Your task to perform on an android device: Open Reddit.com Image 0: 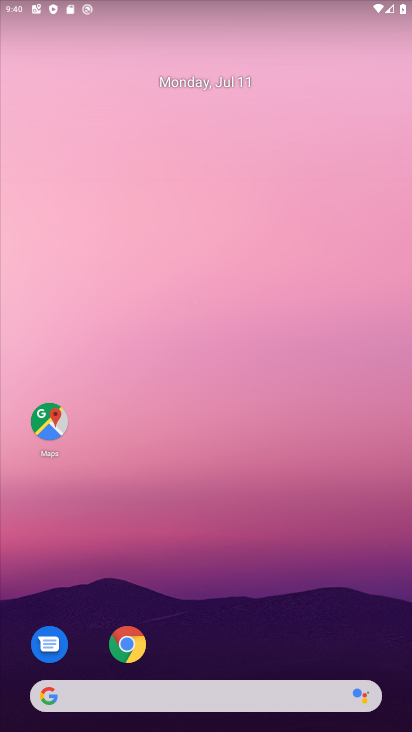
Step 0: drag from (224, 610) to (276, 75)
Your task to perform on an android device: Open Reddit.com Image 1: 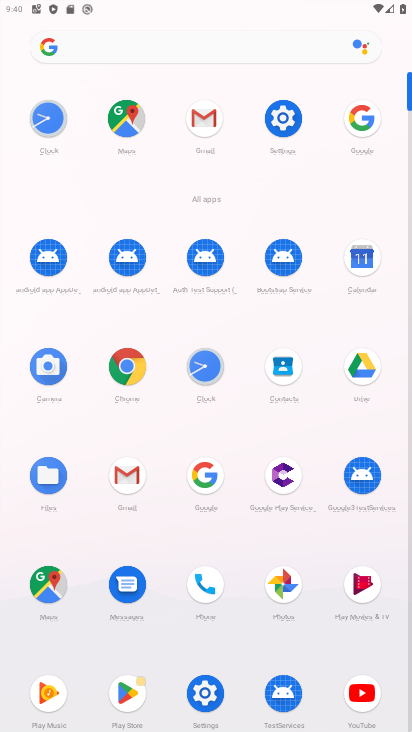
Step 1: click (365, 122)
Your task to perform on an android device: Open Reddit.com Image 2: 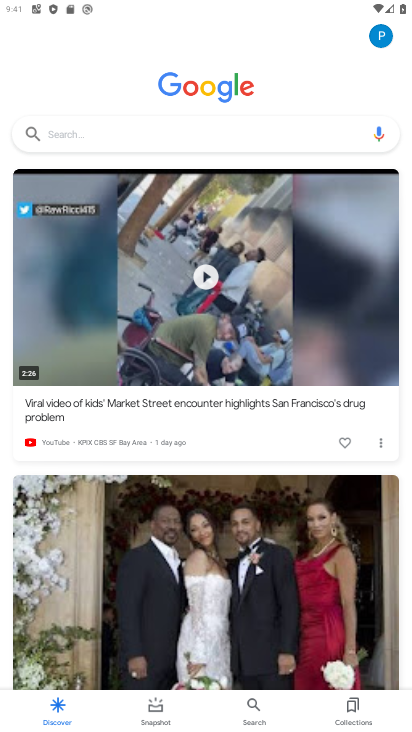
Step 2: click (184, 143)
Your task to perform on an android device: Open Reddit.com Image 3: 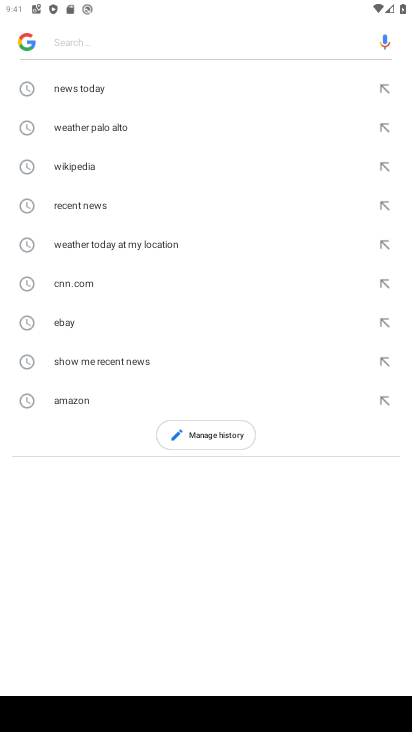
Step 3: type "reddit.com"
Your task to perform on an android device: Open Reddit.com Image 4: 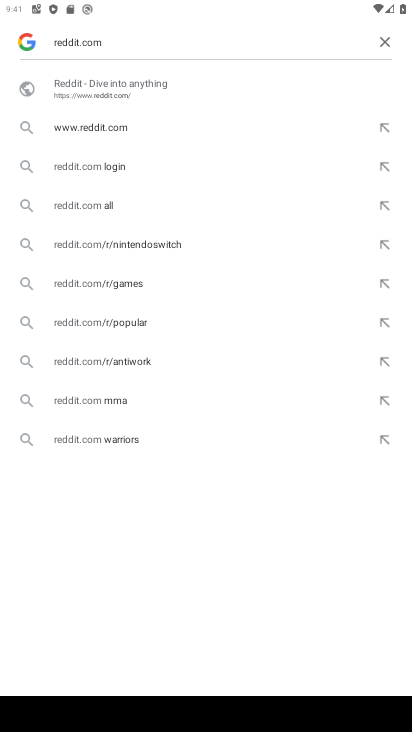
Step 4: click (101, 133)
Your task to perform on an android device: Open Reddit.com Image 5: 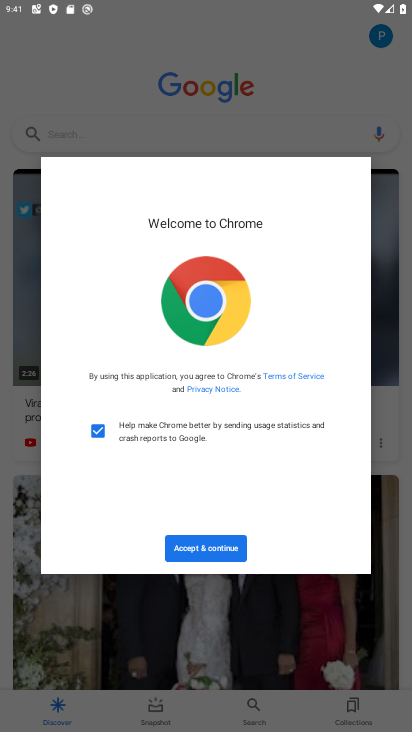
Step 5: click (199, 557)
Your task to perform on an android device: Open Reddit.com Image 6: 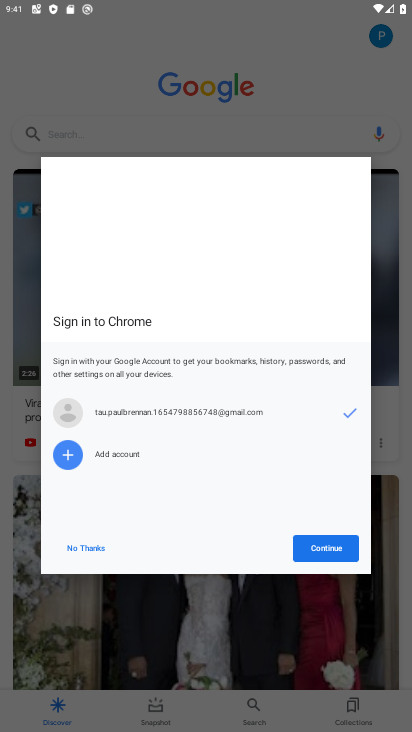
Step 6: click (314, 557)
Your task to perform on an android device: Open Reddit.com Image 7: 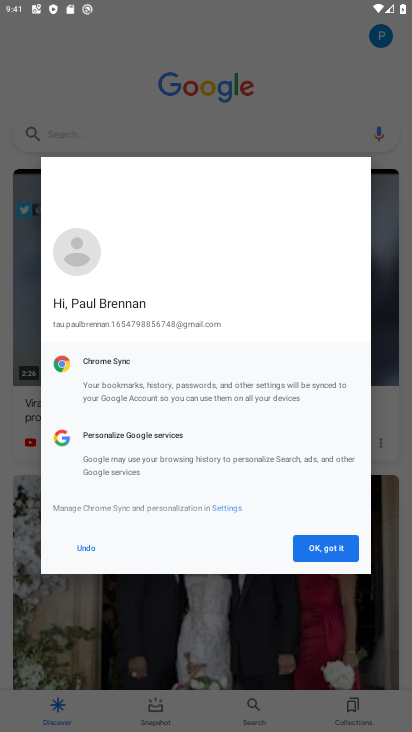
Step 7: click (321, 548)
Your task to perform on an android device: Open Reddit.com Image 8: 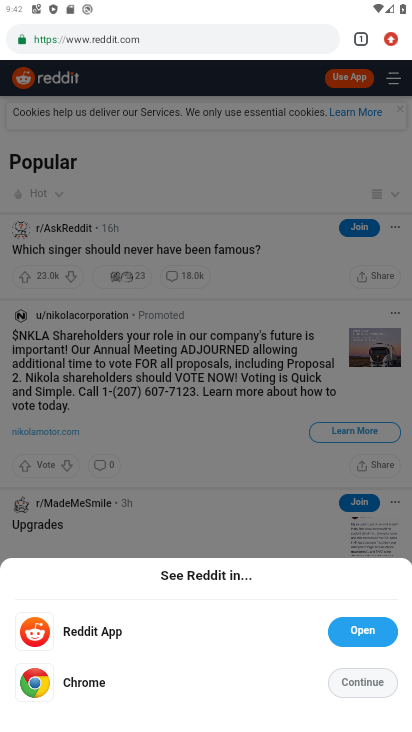
Step 8: task complete